Your task to perform on an android device: What's the weather today? Image 0: 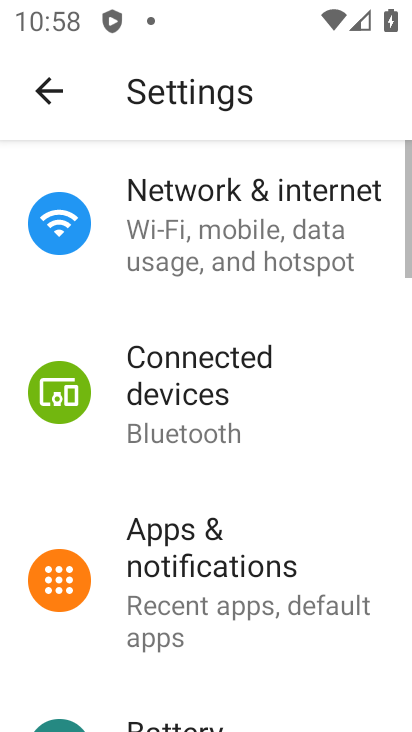
Step 0: press home button
Your task to perform on an android device: What's the weather today? Image 1: 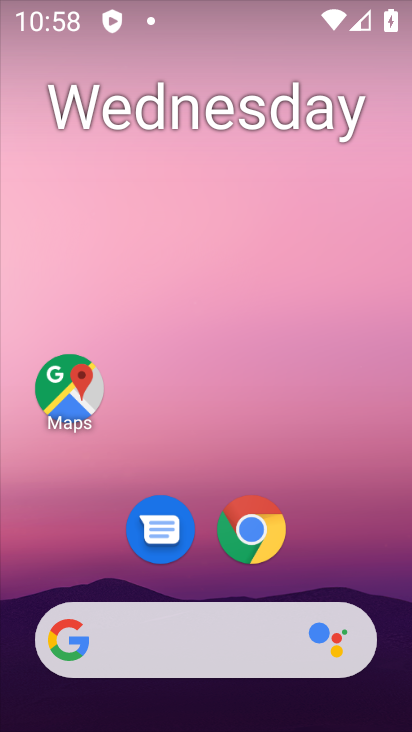
Step 1: click (173, 627)
Your task to perform on an android device: What's the weather today? Image 2: 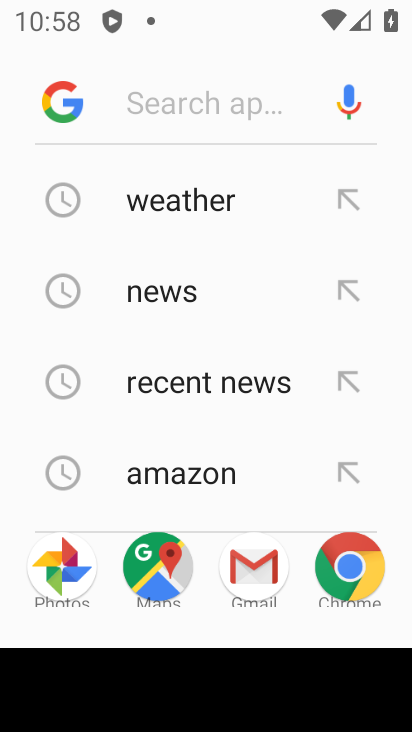
Step 2: click (202, 204)
Your task to perform on an android device: What's the weather today? Image 3: 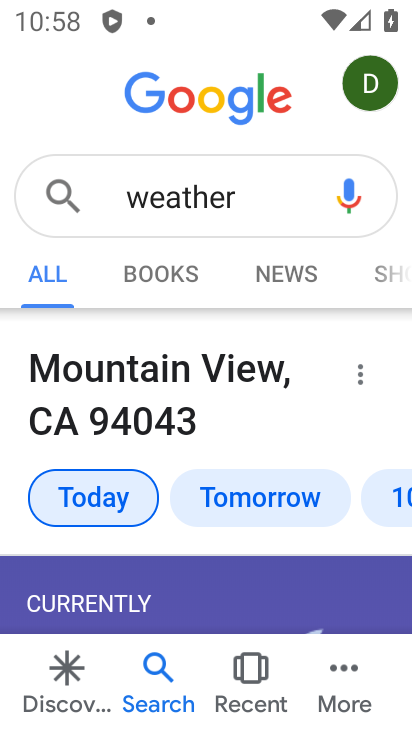
Step 3: task complete